Your task to perform on an android device: install app "Microsoft Outlook" Image 0: 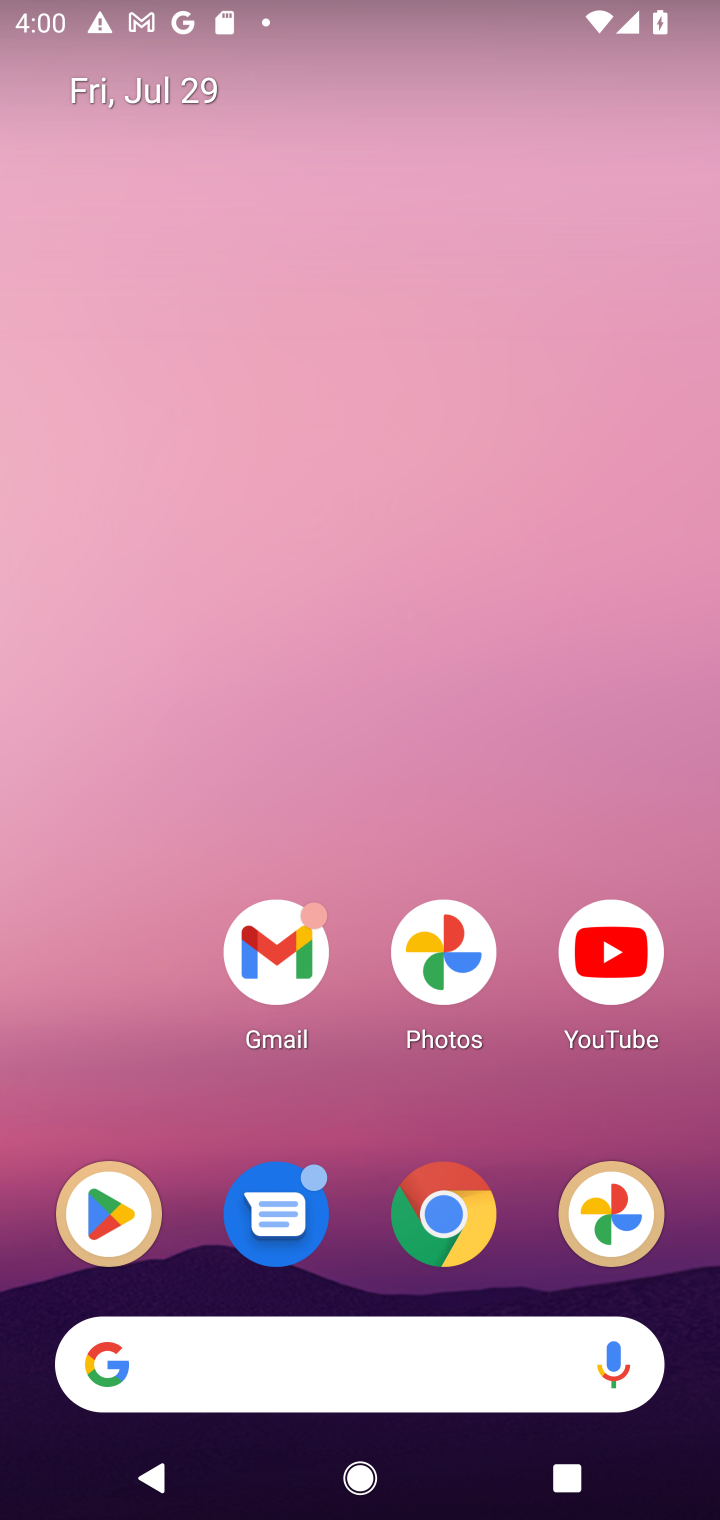
Step 0: click (75, 1196)
Your task to perform on an android device: install app "Microsoft Outlook" Image 1: 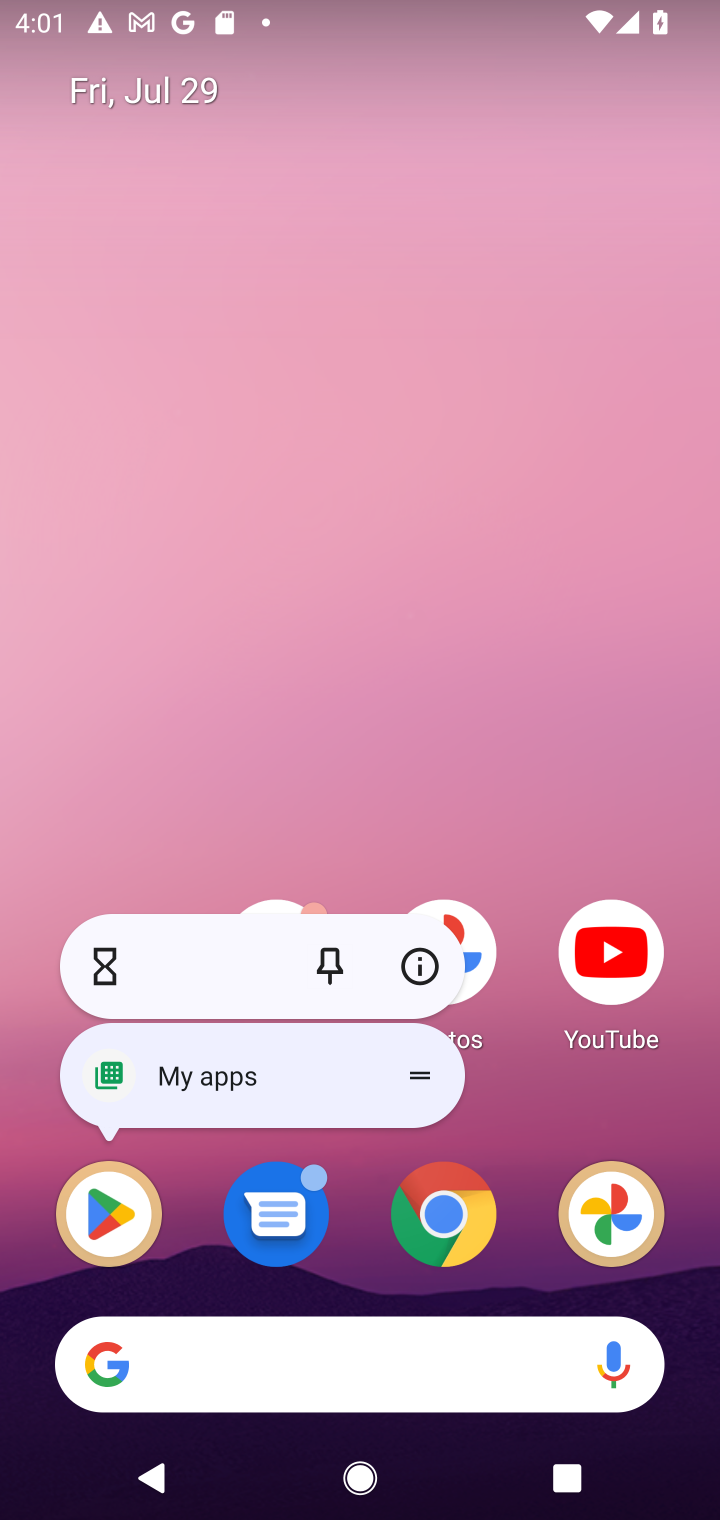
Step 1: click (129, 1216)
Your task to perform on an android device: install app "Microsoft Outlook" Image 2: 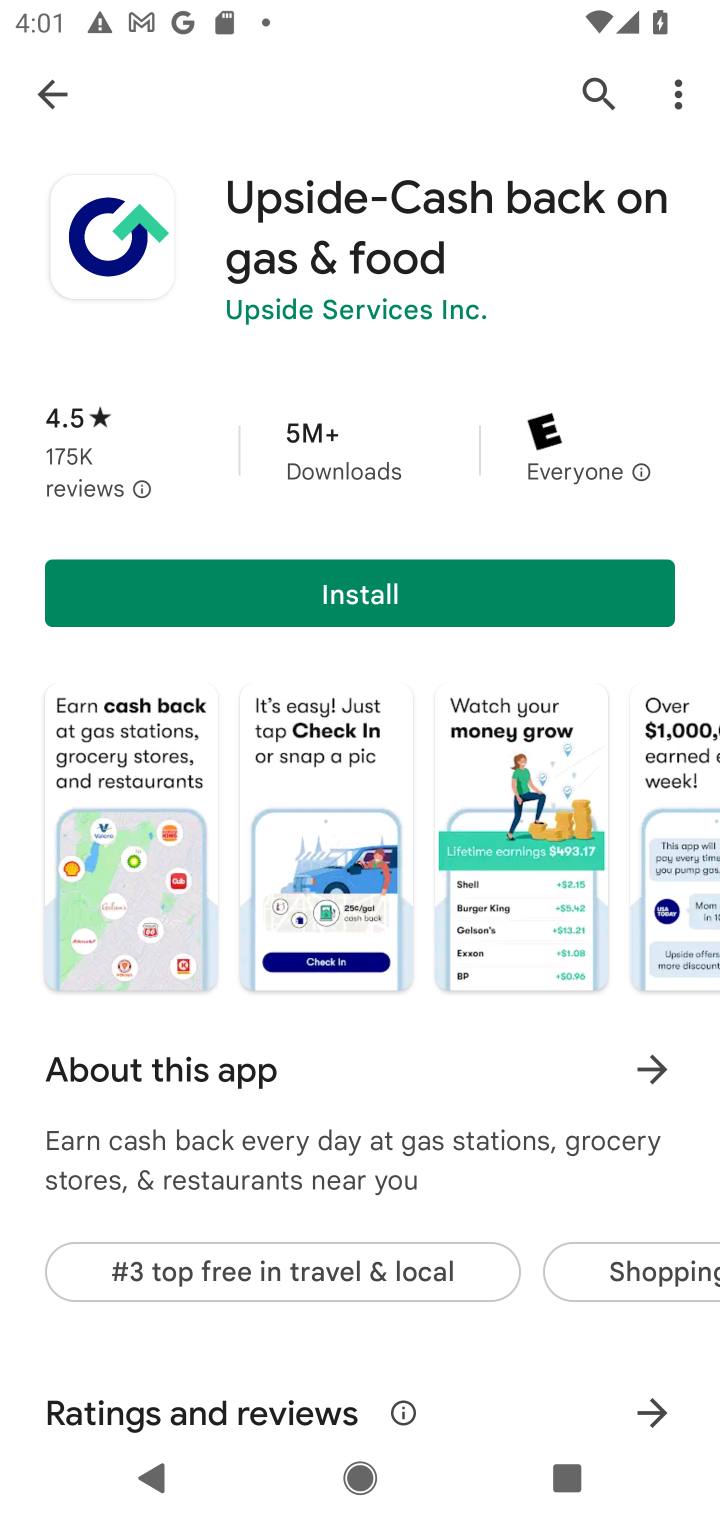
Step 2: click (62, 81)
Your task to perform on an android device: install app "Microsoft Outlook" Image 3: 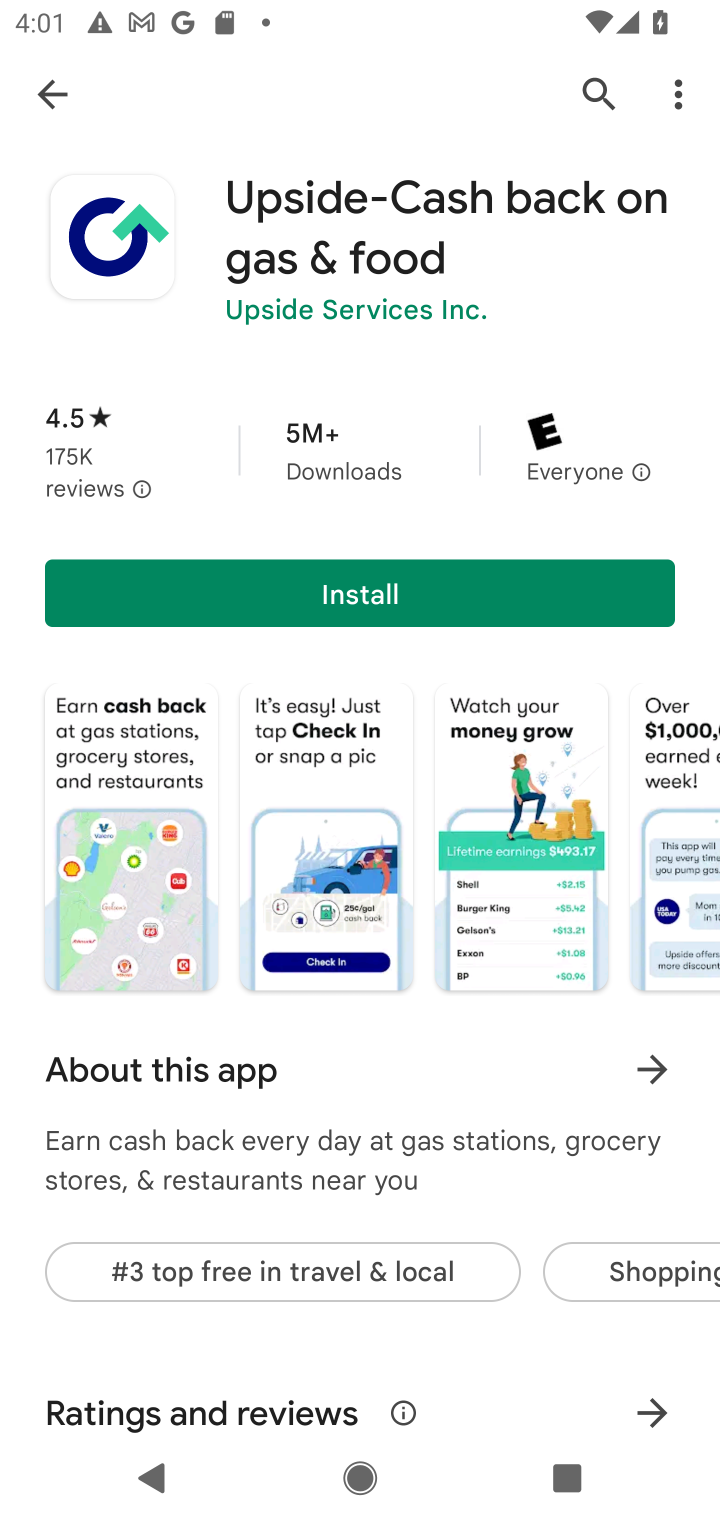
Step 3: click (45, 86)
Your task to perform on an android device: install app "Microsoft Outlook" Image 4: 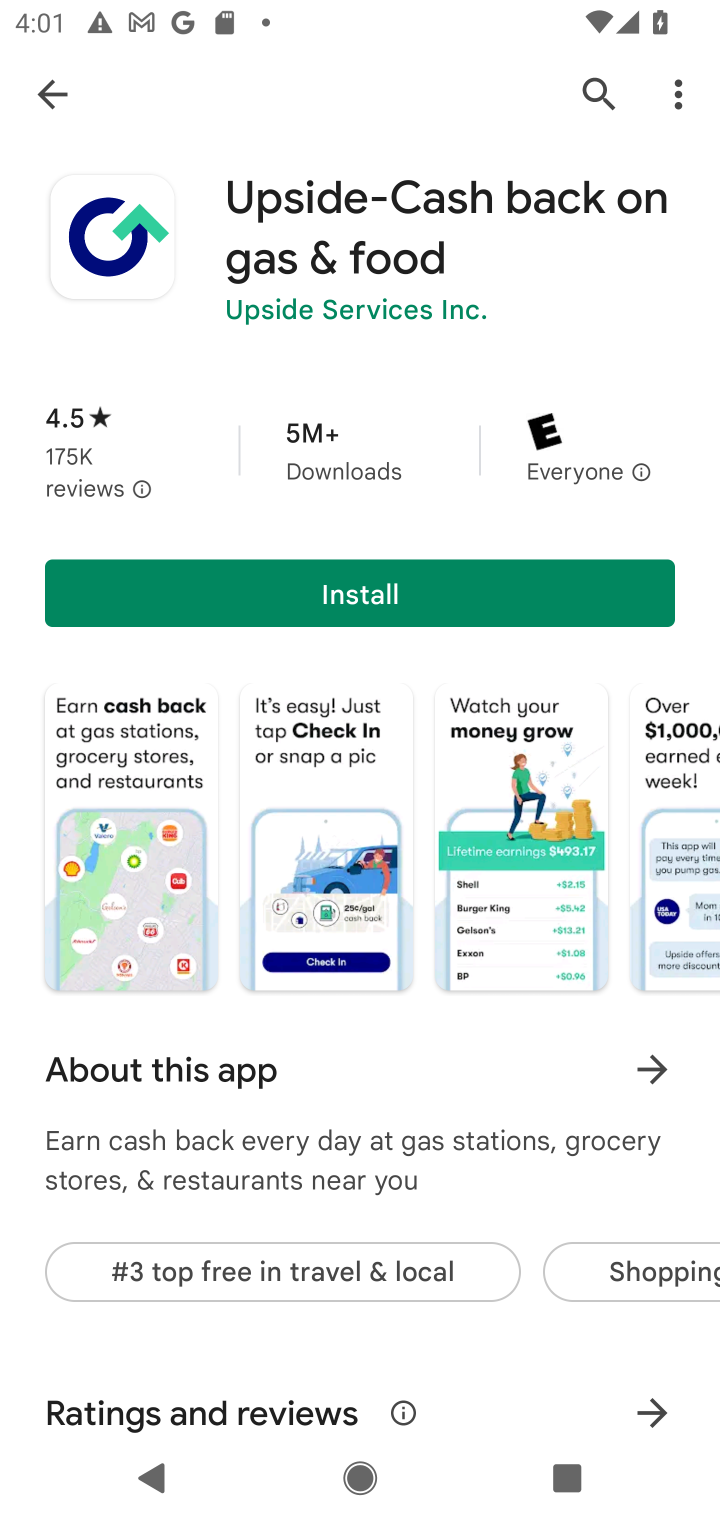
Step 4: click (48, 89)
Your task to perform on an android device: install app "Microsoft Outlook" Image 5: 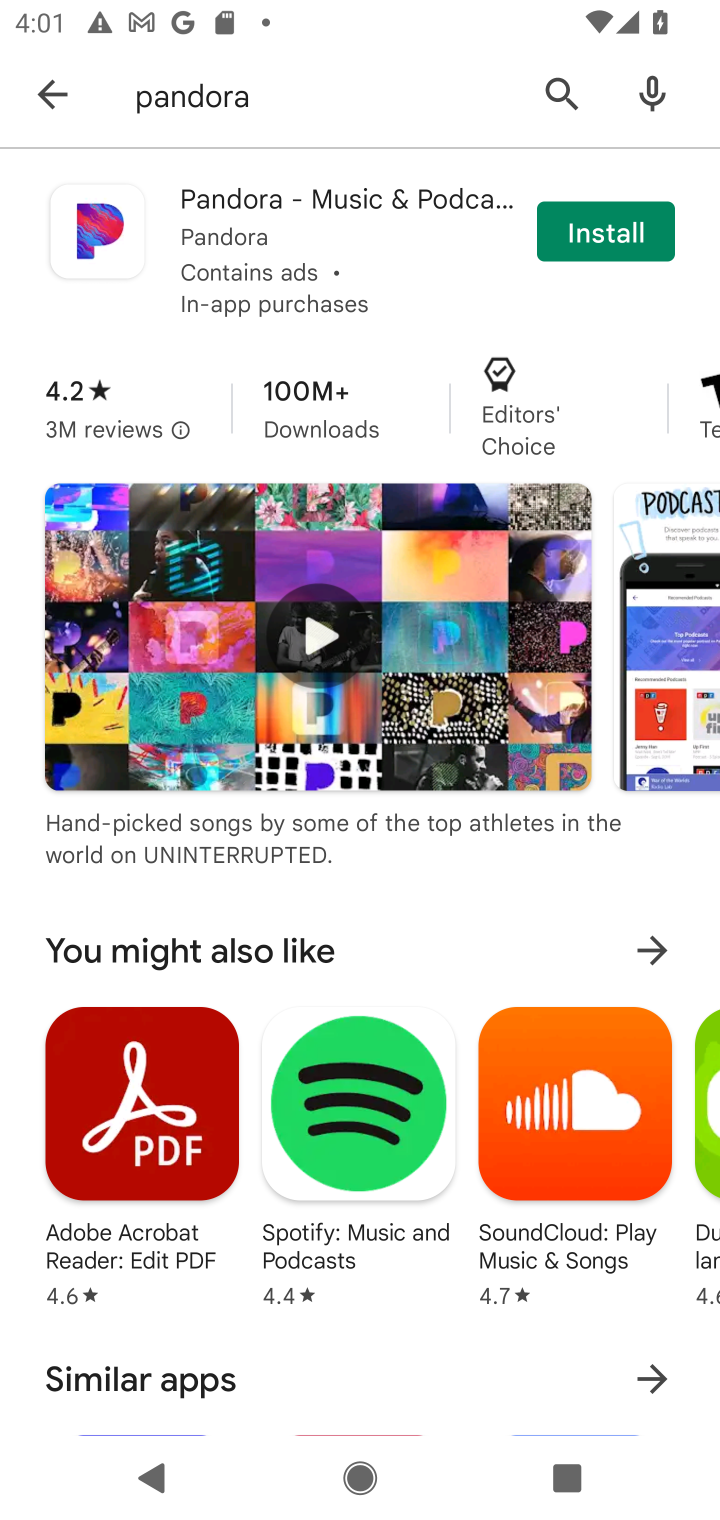
Step 5: click (291, 94)
Your task to perform on an android device: install app "Microsoft Outlook" Image 6: 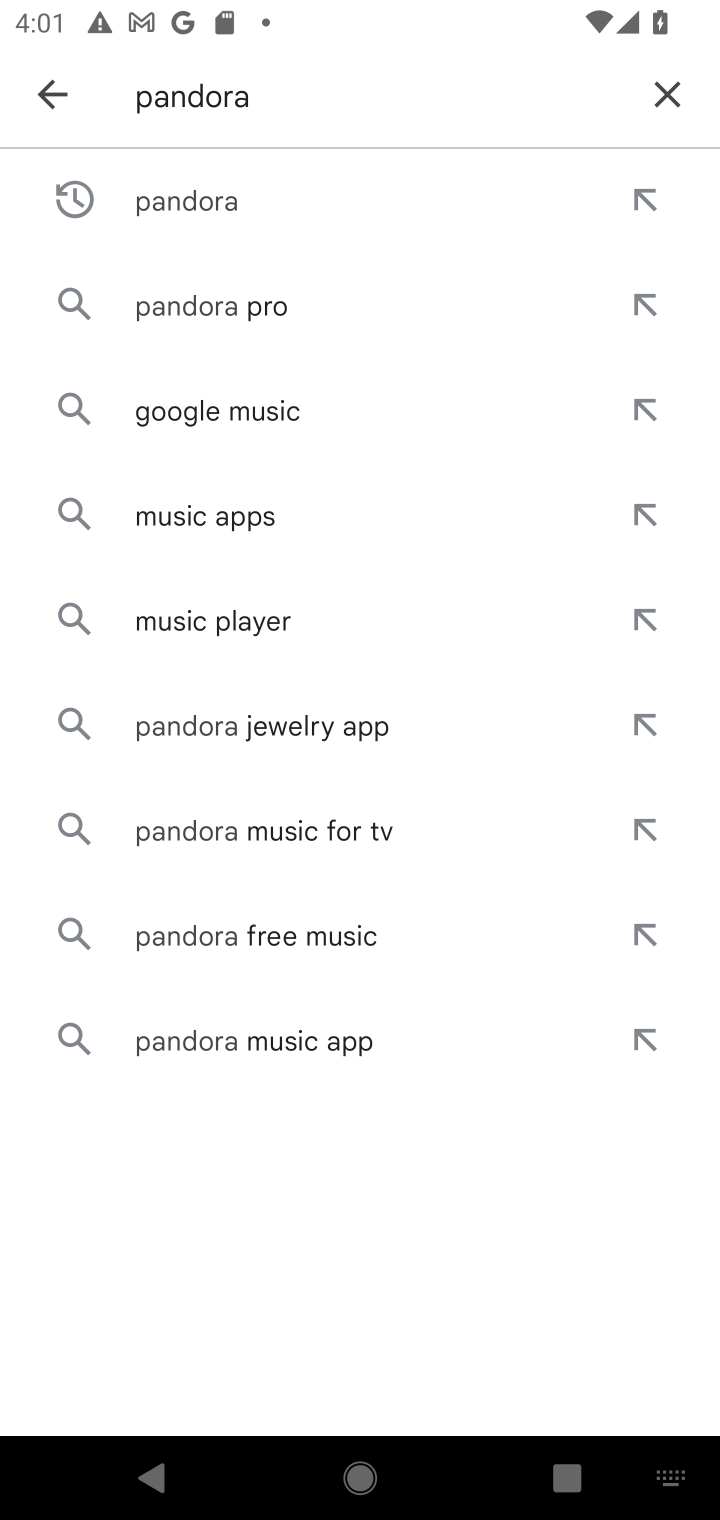
Step 6: click (670, 91)
Your task to perform on an android device: install app "Microsoft Outlook" Image 7: 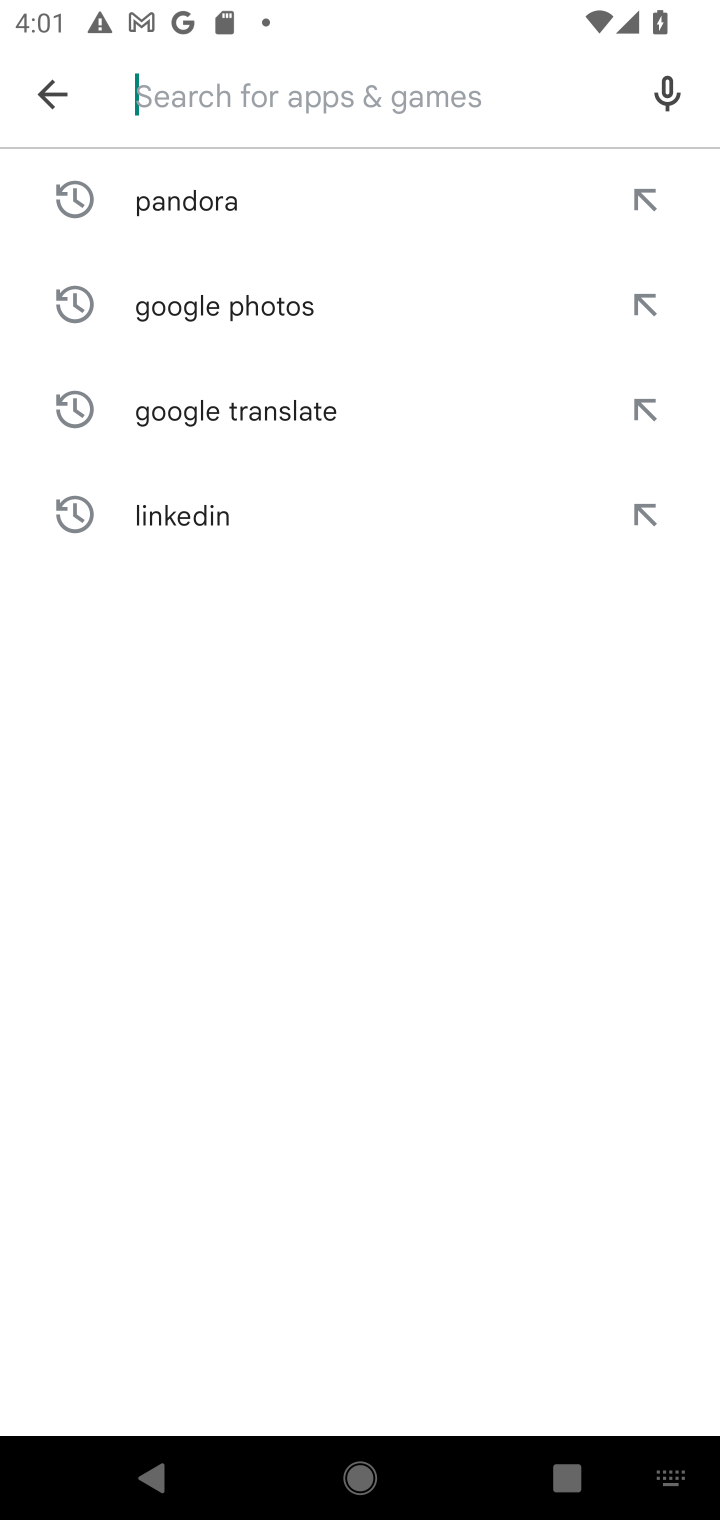
Step 7: type "microsoft Outlook"
Your task to perform on an android device: install app "Microsoft Outlook" Image 8: 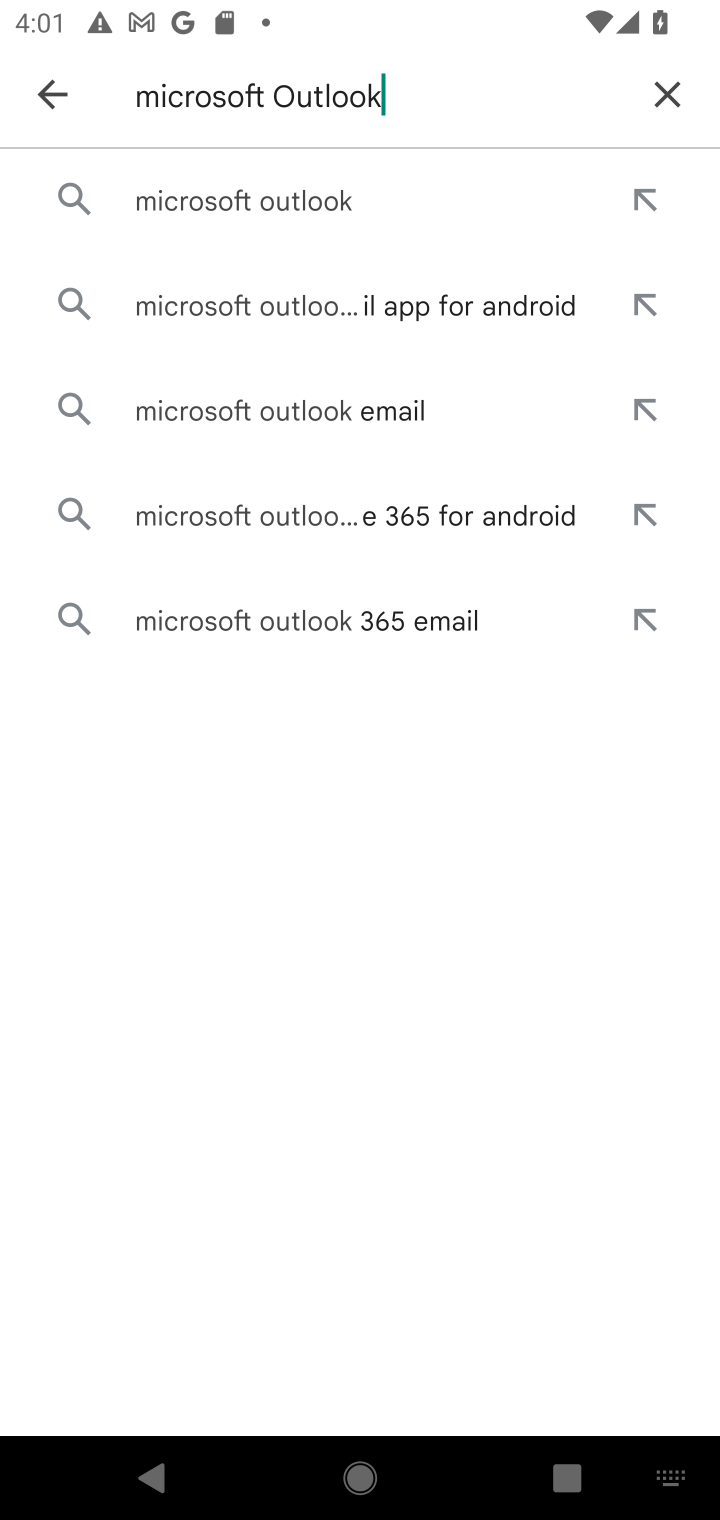
Step 8: click (256, 200)
Your task to perform on an android device: install app "Microsoft Outlook" Image 9: 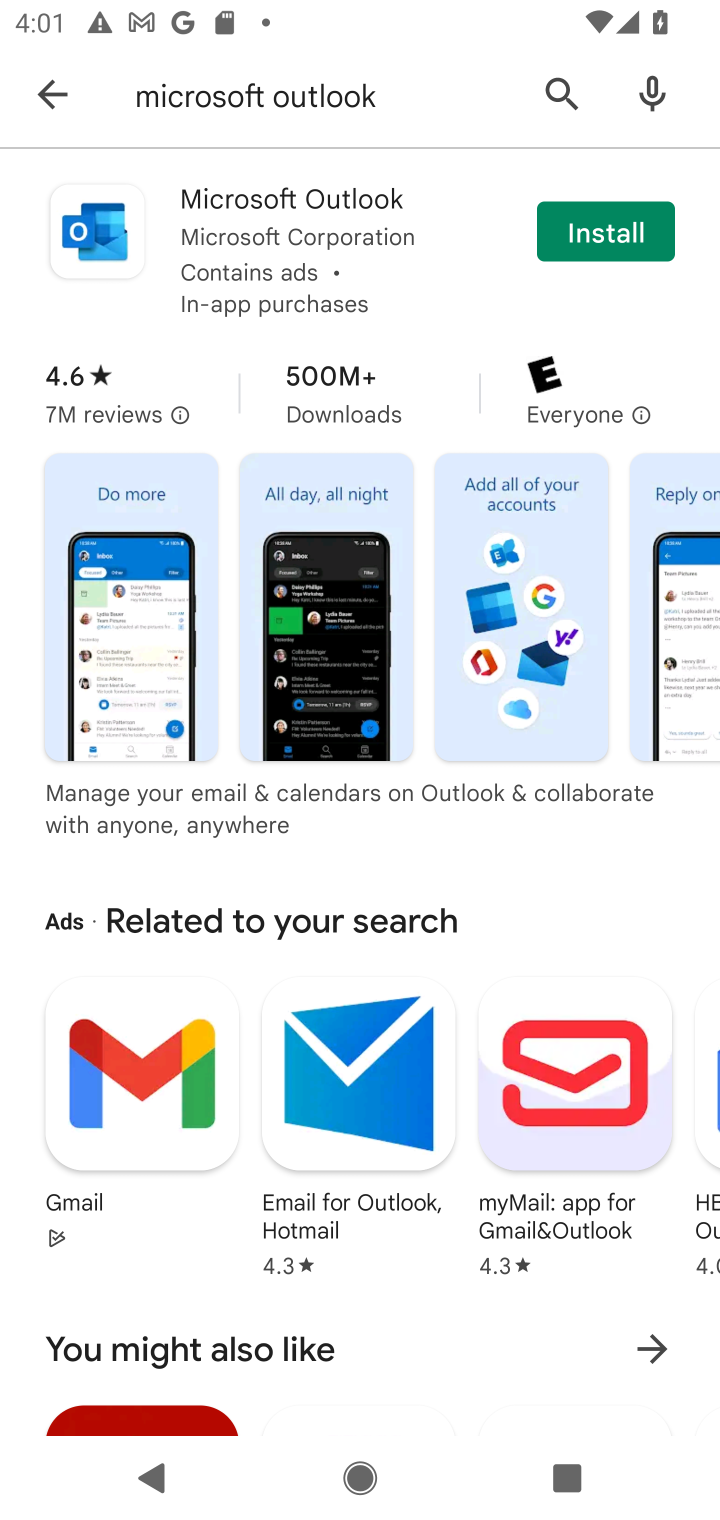
Step 9: click (625, 233)
Your task to perform on an android device: install app "Microsoft Outlook" Image 10: 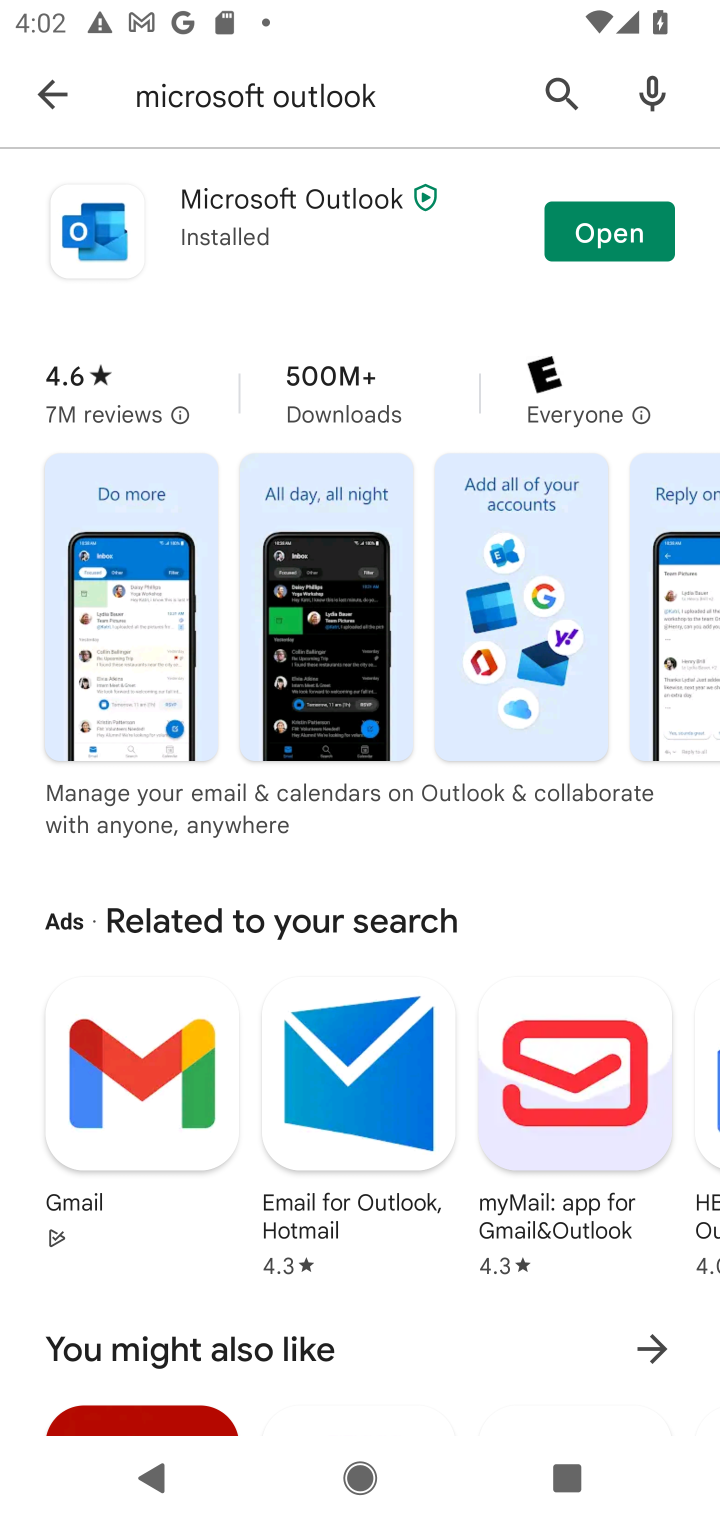
Step 10: click (571, 240)
Your task to perform on an android device: install app "Microsoft Outlook" Image 11: 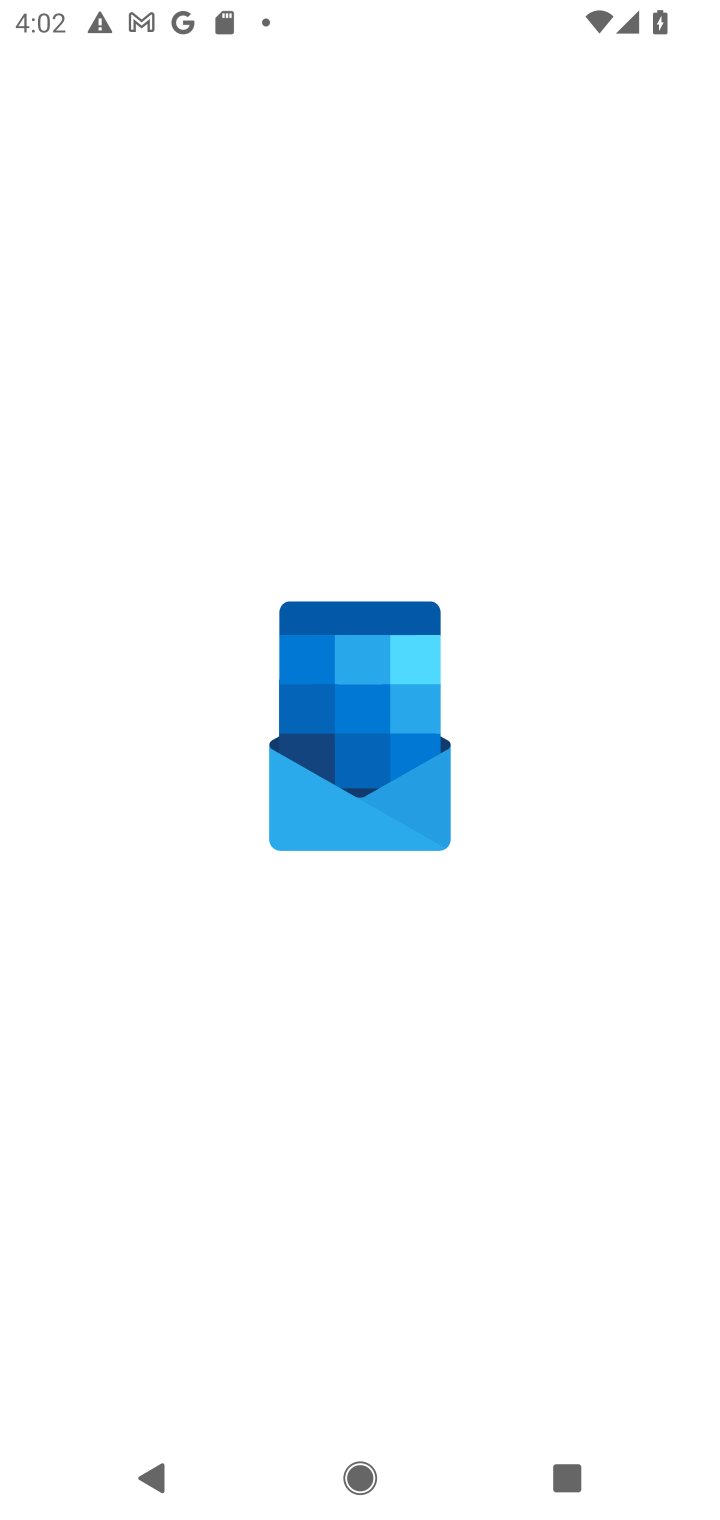
Step 11: task complete